Your task to perform on an android device: Go to Maps Image 0: 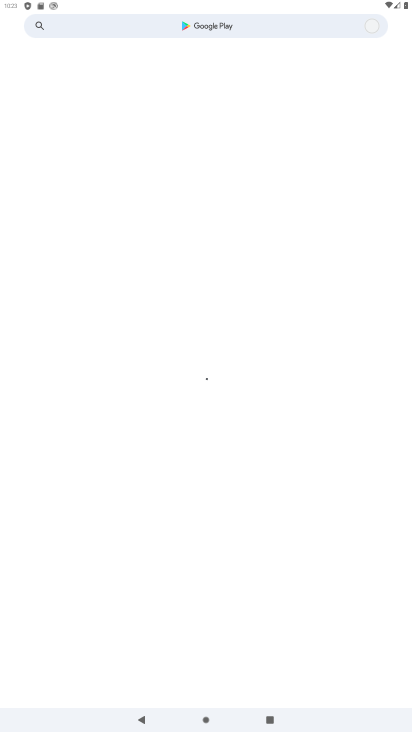
Step 0: press home button
Your task to perform on an android device: Go to Maps Image 1: 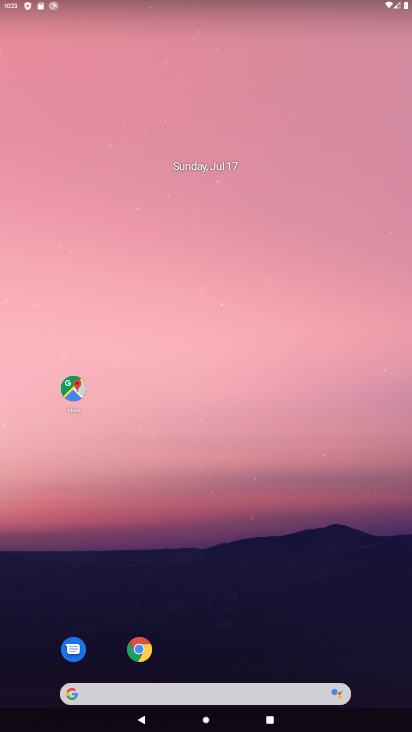
Step 1: click (73, 388)
Your task to perform on an android device: Go to Maps Image 2: 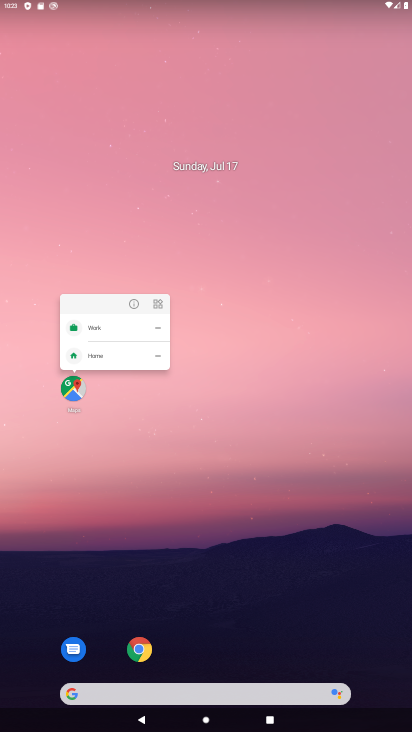
Step 2: click (73, 388)
Your task to perform on an android device: Go to Maps Image 3: 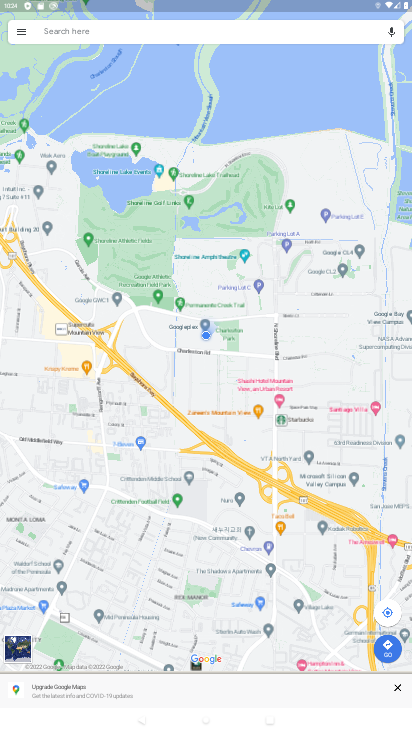
Step 3: task complete